Your task to perform on an android device: Go to calendar. Show me events next week Image 0: 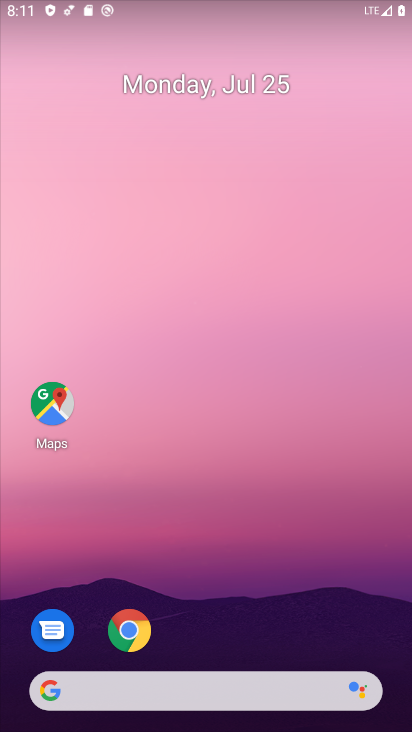
Step 0: drag from (59, 591) to (145, 326)
Your task to perform on an android device: Go to calendar. Show me events next week Image 1: 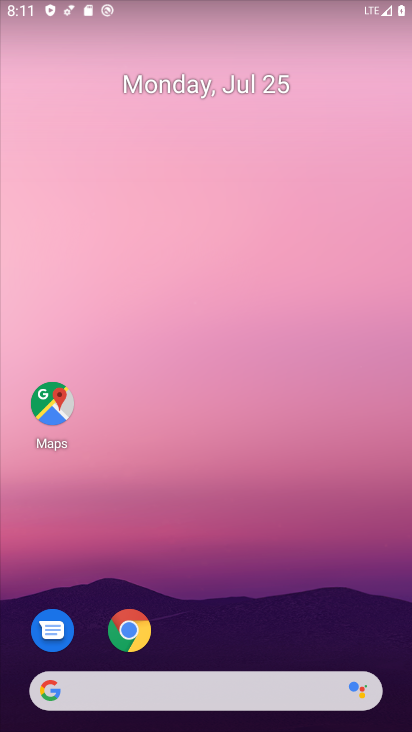
Step 1: drag from (67, 560) to (298, 87)
Your task to perform on an android device: Go to calendar. Show me events next week Image 2: 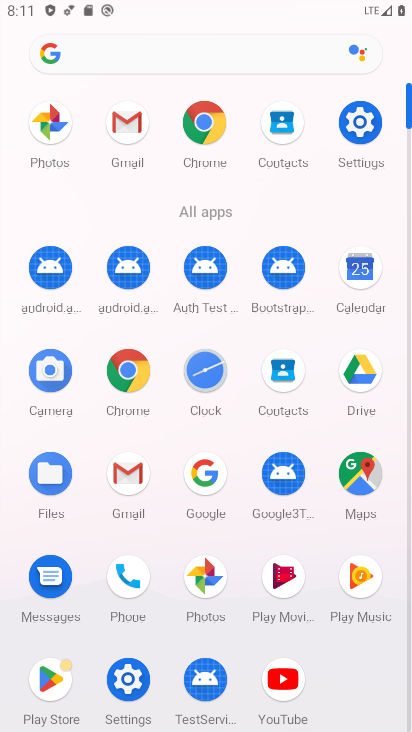
Step 2: click (367, 275)
Your task to perform on an android device: Go to calendar. Show me events next week Image 3: 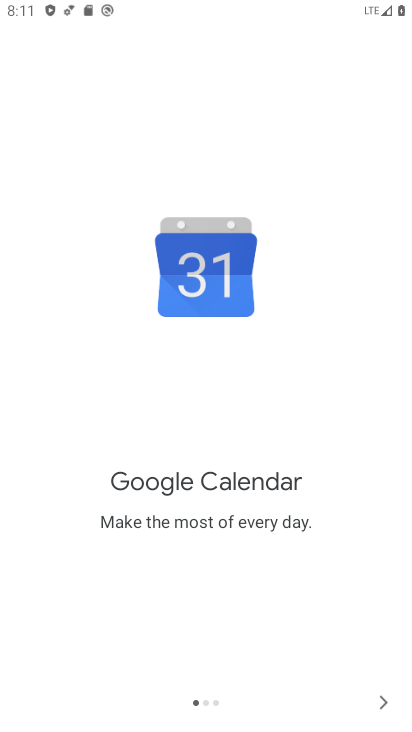
Step 3: click (389, 701)
Your task to perform on an android device: Go to calendar. Show me events next week Image 4: 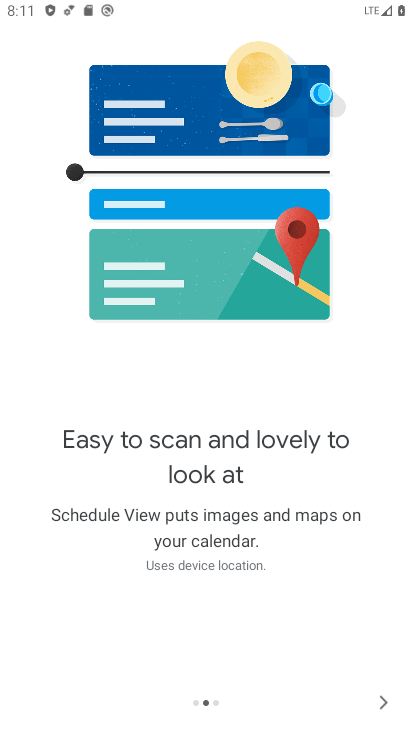
Step 4: click (387, 700)
Your task to perform on an android device: Go to calendar. Show me events next week Image 5: 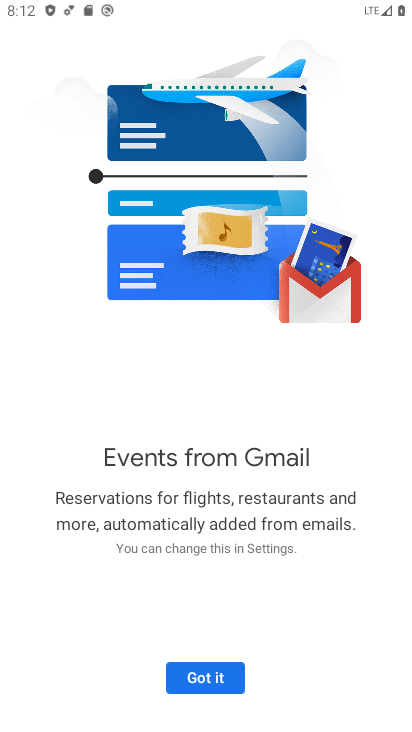
Step 5: click (169, 677)
Your task to perform on an android device: Go to calendar. Show me events next week Image 6: 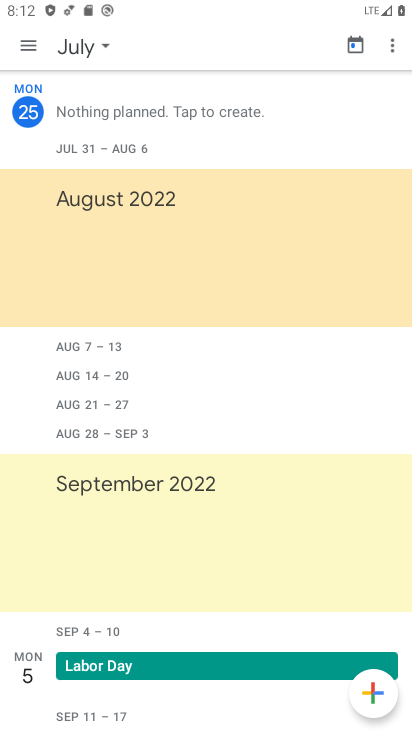
Step 6: click (107, 48)
Your task to perform on an android device: Go to calendar. Show me events next week Image 7: 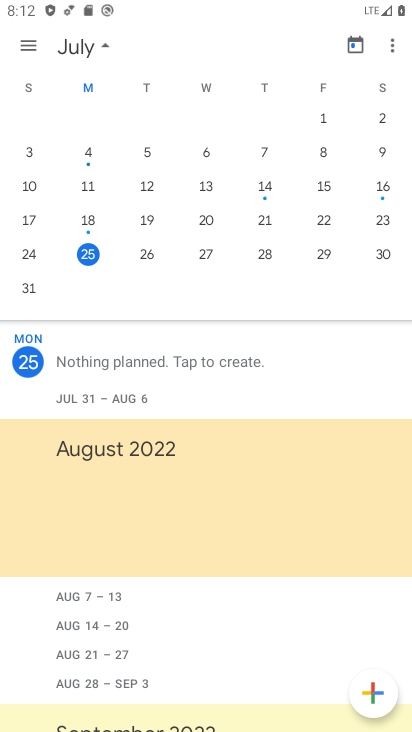
Step 7: task complete